Your task to perform on an android device: turn off data saver in the chrome app Image 0: 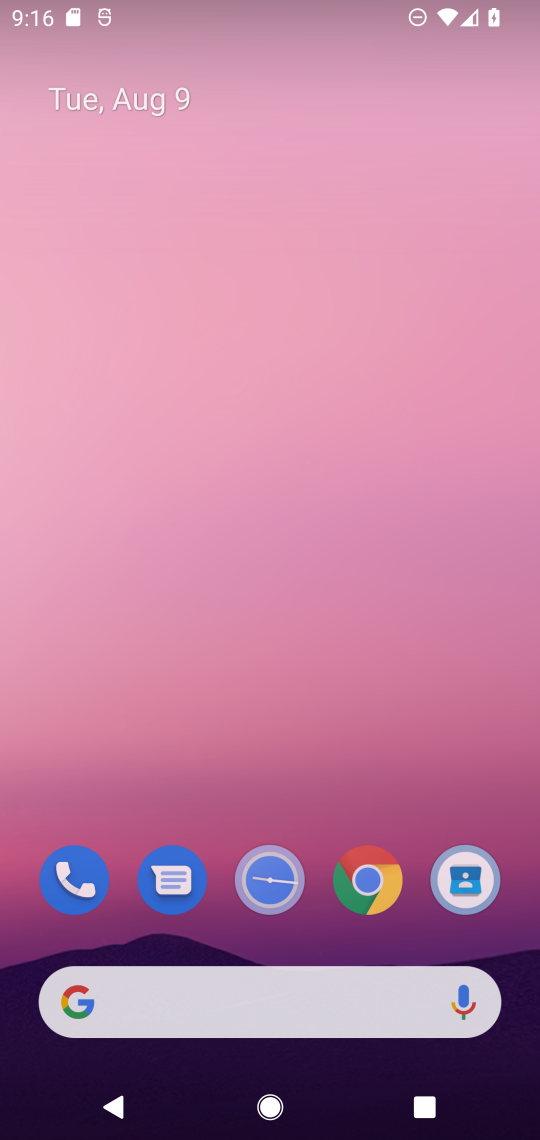
Step 0: press home button
Your task to perform on an android device: turn off data saver in the chrome app Image 1: 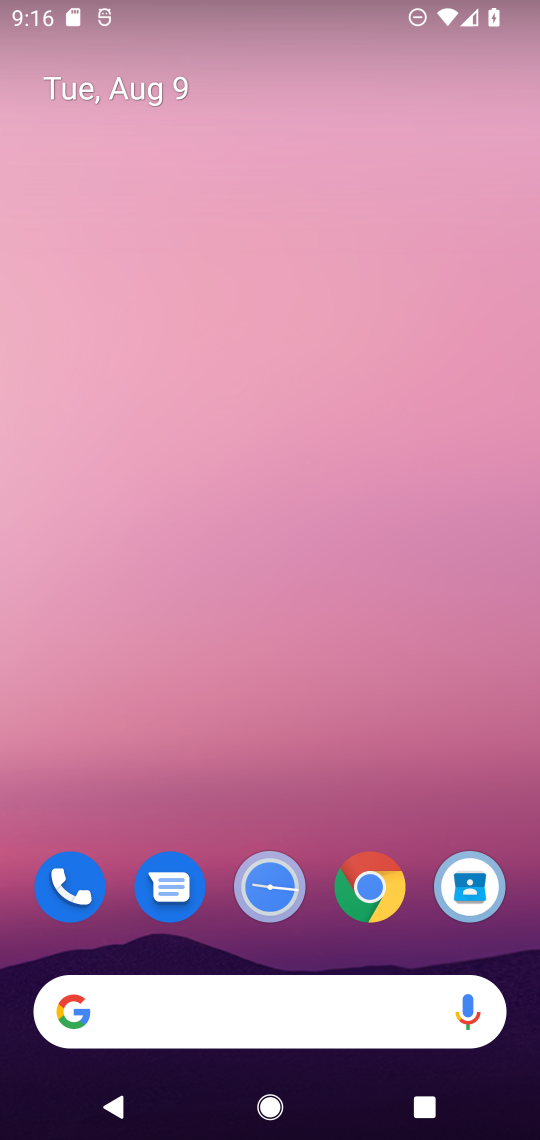
Step 1: drag from (263, 580) to (263, 236)
Your task to perform on an android device: turn off data saver in the chrome app Image 2: 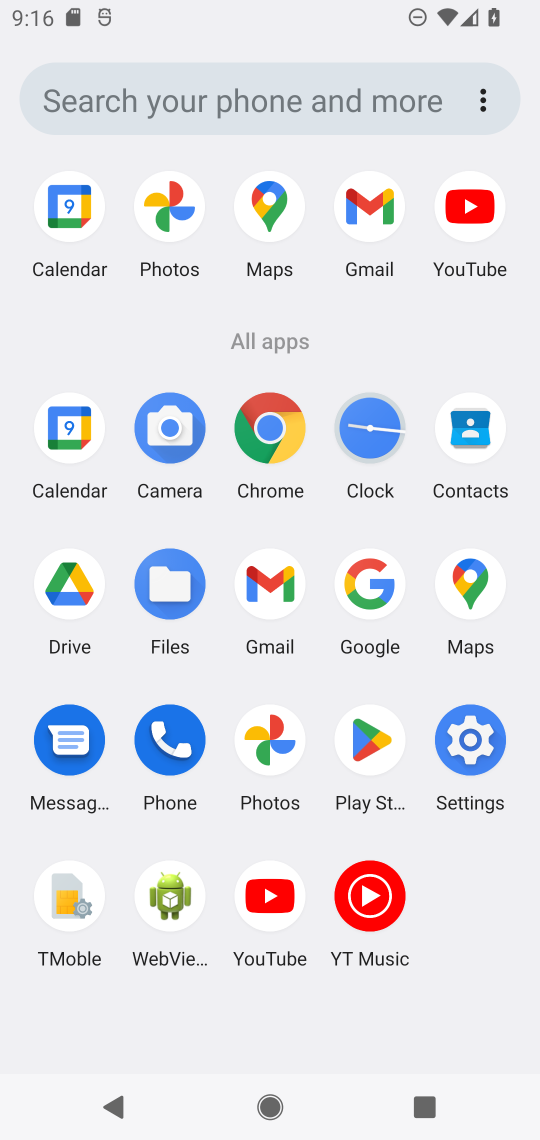
Step 2: click (250, 445)
Your task to perform on an android device: turn off data saver in the chrome app Image 3: 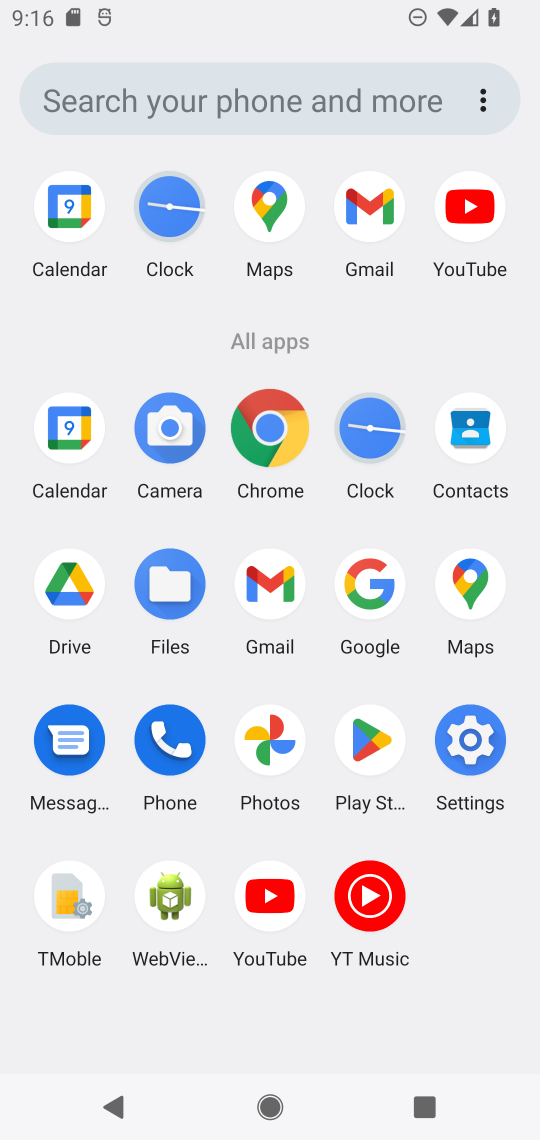
Step 3: click (270, 420)
Your task to perform on an android device: turn off data saver in the chrome app Image 4: 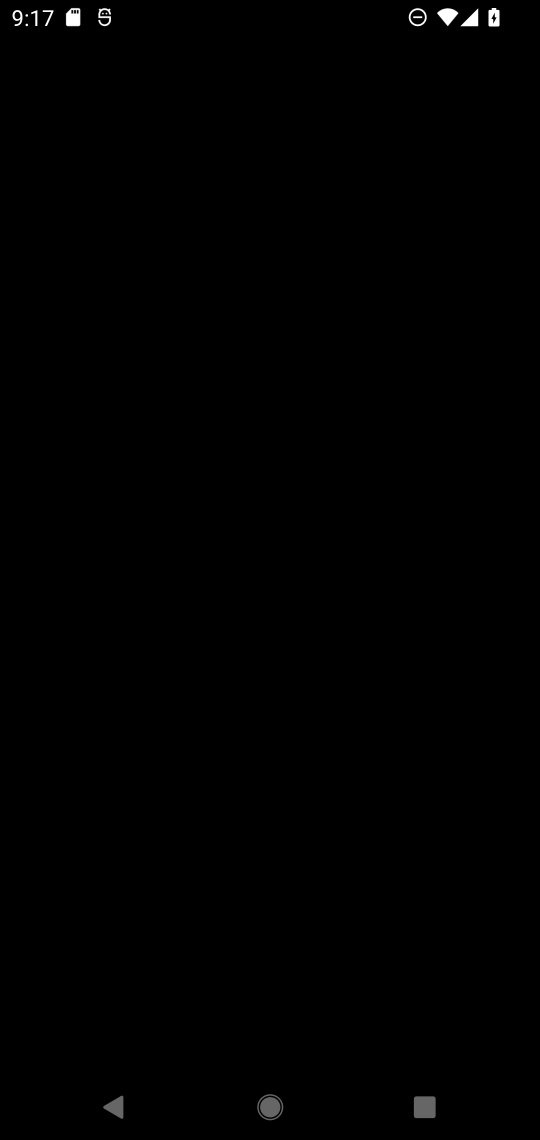
Step 4: task complete